Your task to perform on an android device: Open calendar and show me the fourth week of next month Image 0: 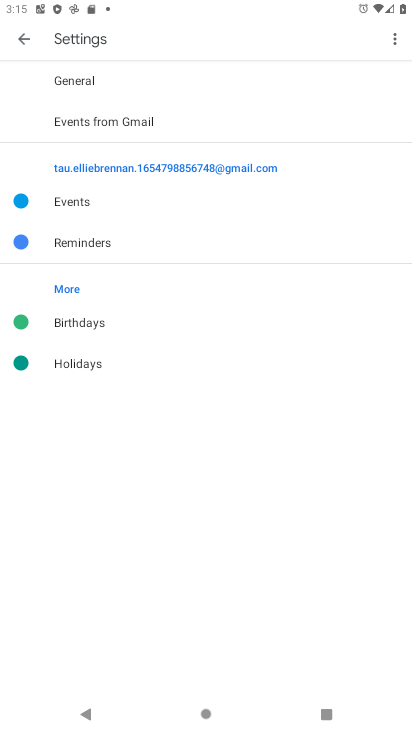
Step 0: press home button
Your task to perform on an android device: Open calendar and show me the fourth week of next month Image 1: 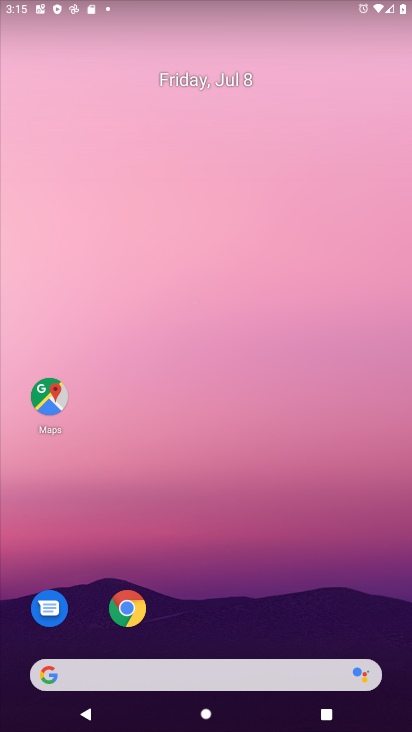
Step 1: drag from (232, 675) to (291, 17)
Your task to perform on an android device: Open calendar and show me the fourth week of next month Image 2: 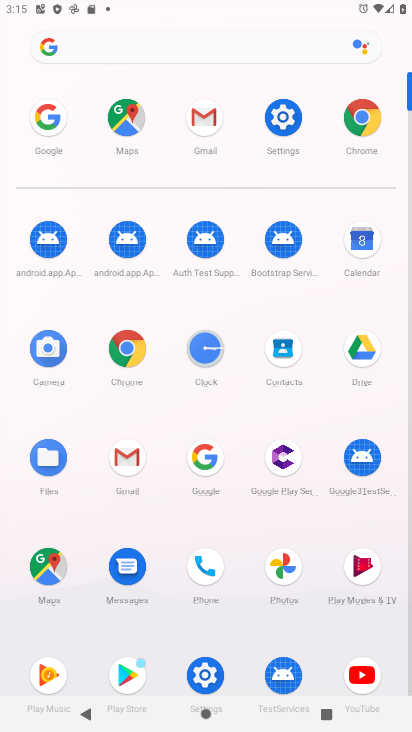
Step 2: click (362, 247)
Your task to perform on an android device: Open calendar and show me the fourth week of next month Image 3: 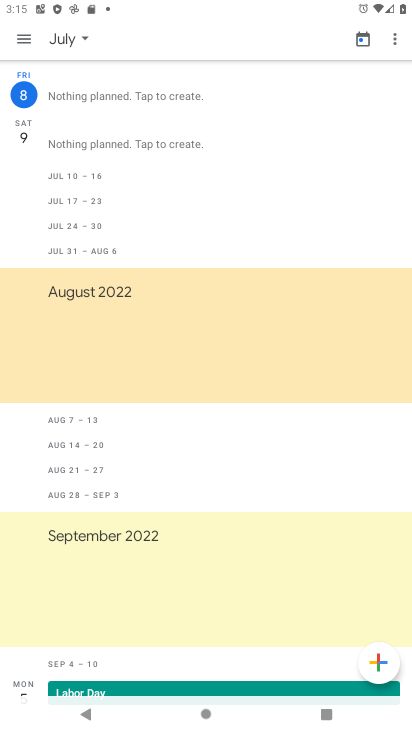
Step 3: click (83, 36)
Your task to perform on an android device: Open calendar and show me the fourth week of next month Image 4: 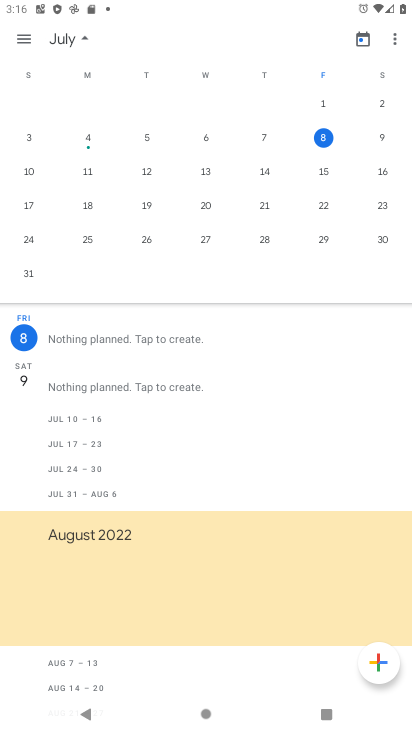
Step 4: drag from (354, 197) to (0, 318)
Your task to perform on an android device: Open calendar and show me the fourth week of next month Image 5: 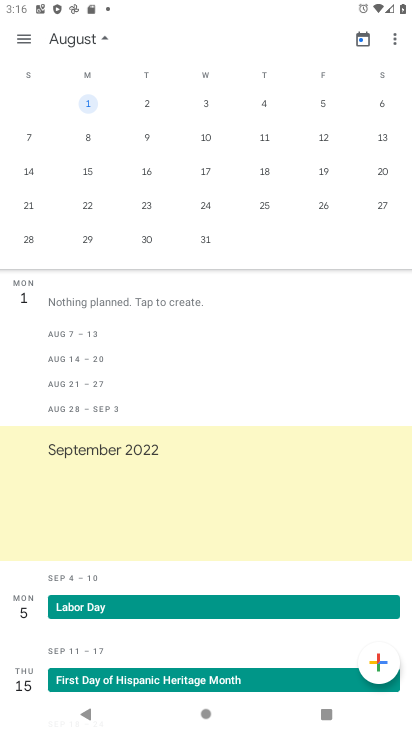
Step 5: click (206, 205)
Your task to perform on an android device: Open calendar and show me the fourth week of next month Image 6: 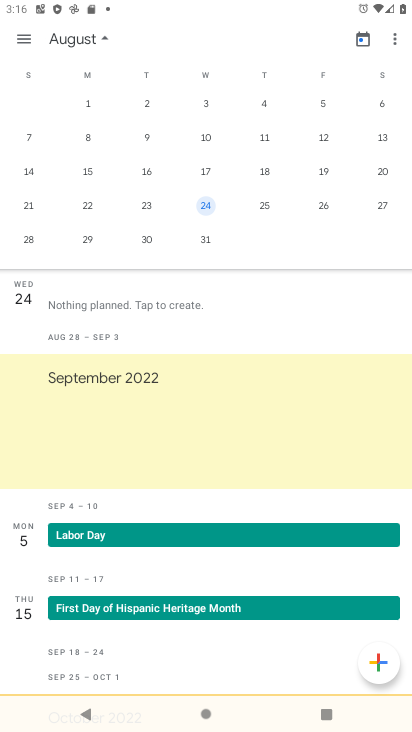
Step 6: click (18, 34)
Your task to perform on an android device: Open calendar and show me the fourth week of next month Image 7: 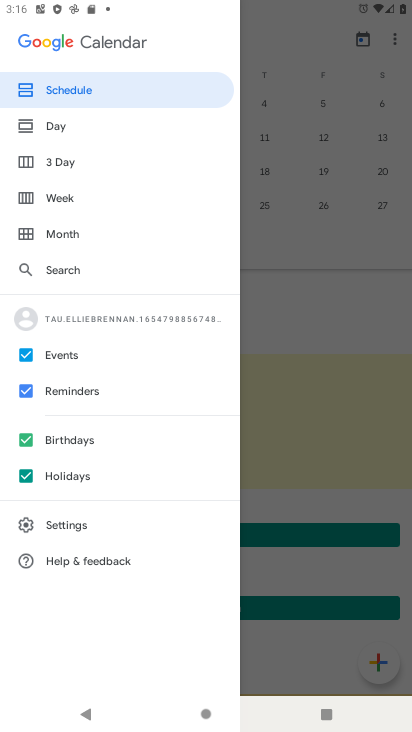
Step 7: click (70, 202)
Your task to perform on an android device: Open calendar and show me the fourth week of next month Image 8: 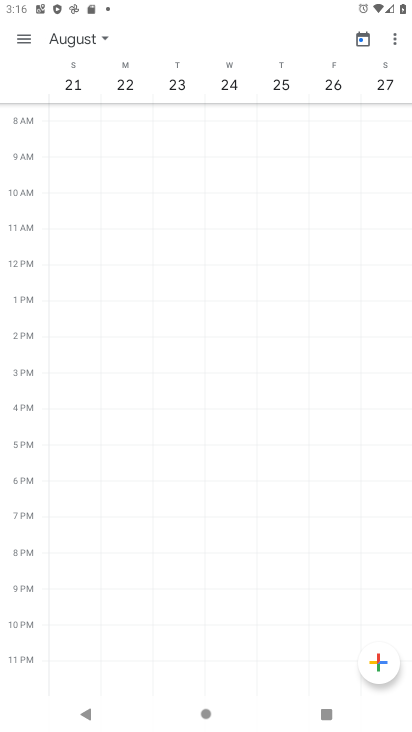
Step 8: task complete